Your task to perform on an android device: Open Wikipedia Image 0: 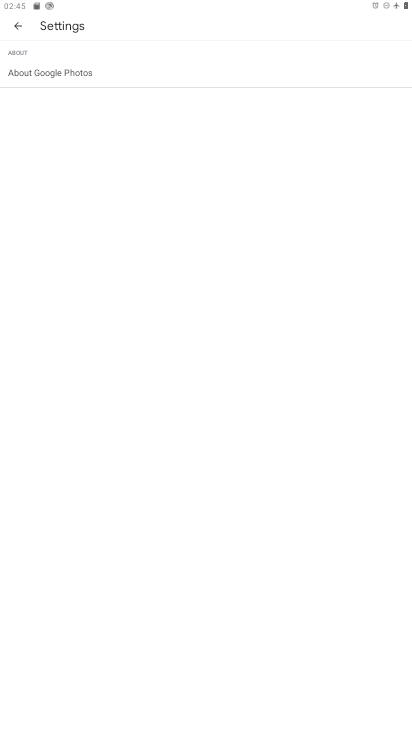
Step 0: press home button
Your task to perform on an android device: Open Wikipedia Image 1: 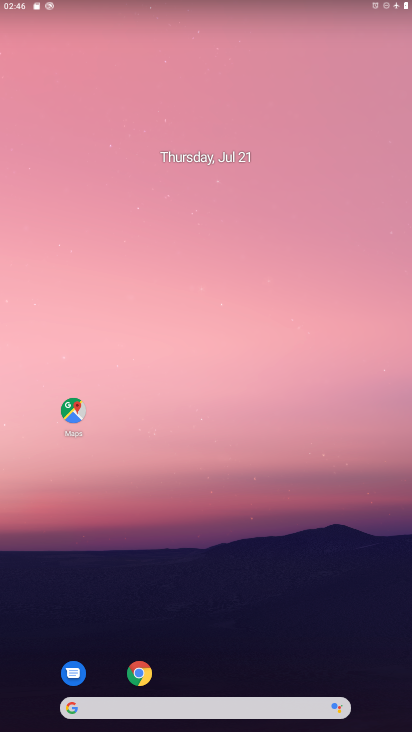
Step 1: drag from (200, 573) to (198, 57)
Your task to perform on an android device: Open Wikipedia Image 2: 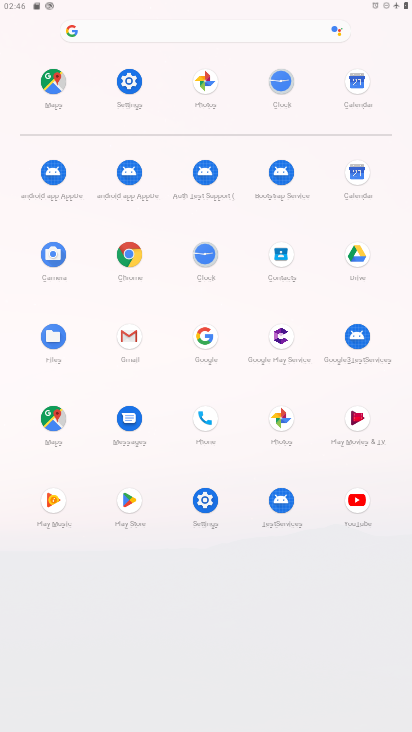
Step 2: click (122, 83)
Your task to perform on an android device: Open Wikipedia Image 3: 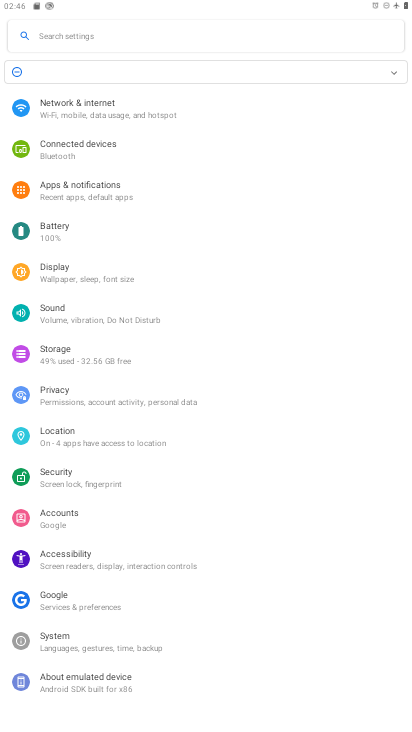
Step 3: press home button
Your task to perform on an android device: Open Wikipedia Image 4: 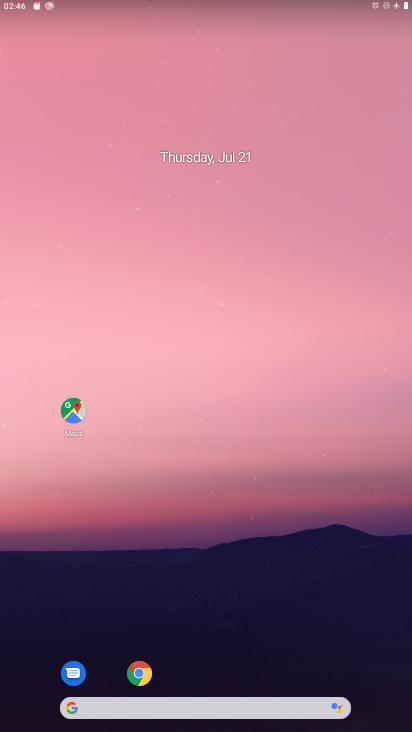
Step 4: click (137, 676)
Your task to perform on an android device: Open Wikipedia Image 5: 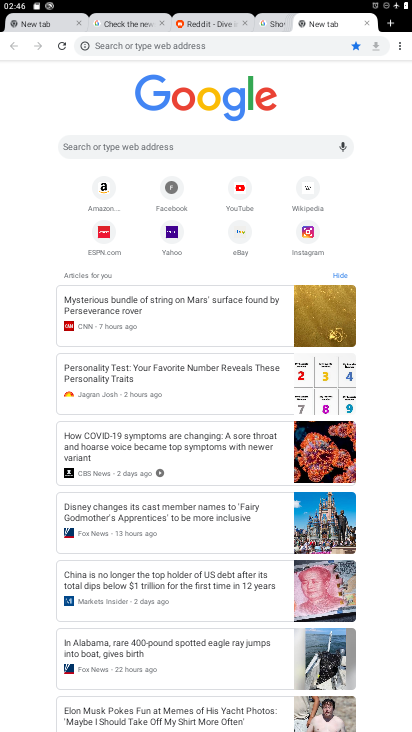
Step 5: click (310, 187)
Your task to perform on an android device: Open Wikipedia Image 6: 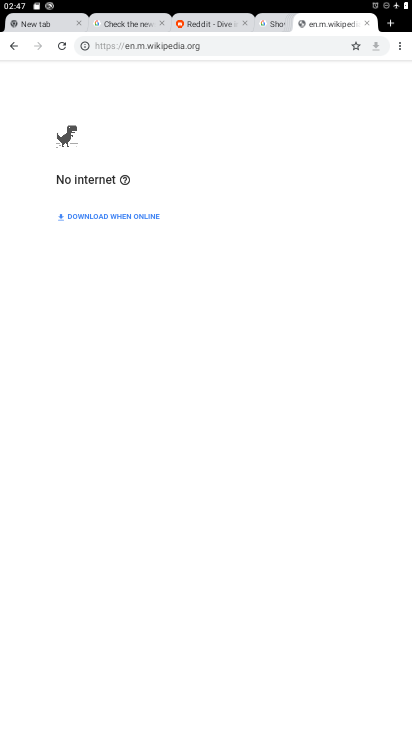
Step 6: task complete